Your task to perform on an android device: toggle priority inbox in the gmail app Image 0: 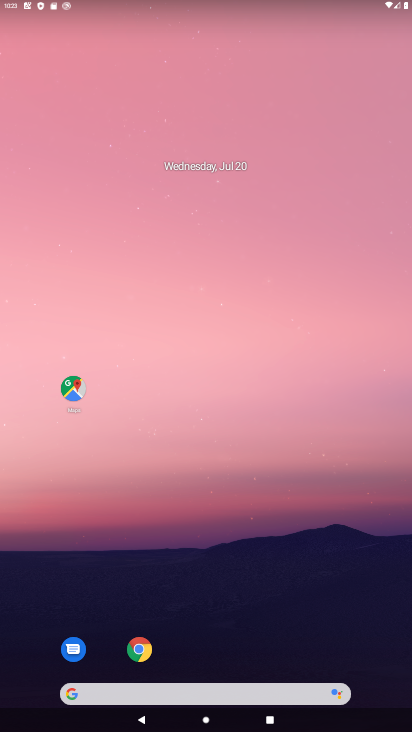
Step 0: drag from (267, 663) to (253, 24)
Your task to perform on an android device: toggle priority inbox in the gmail app Image 1: 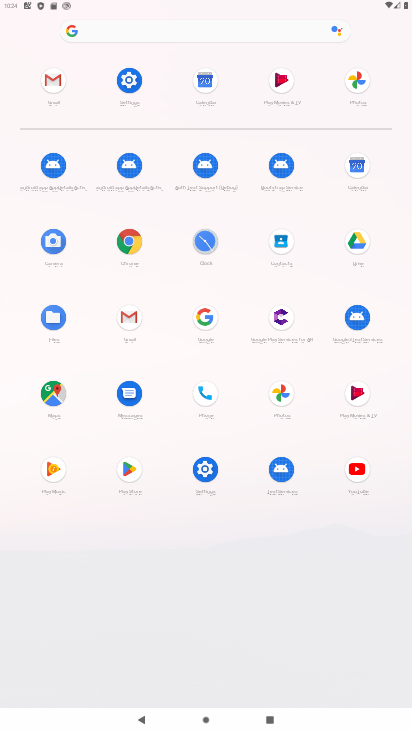
Step 1: click (56, 95)
Your task to perform on an android device: toggle priority inbox in the gmail app Image 2: 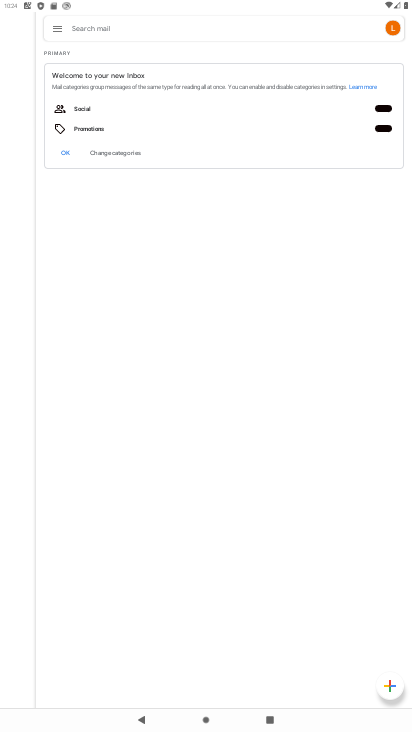
Step 2: task complete